Your task to perform on an android device: search for starred emails in the gmail app Image 0: 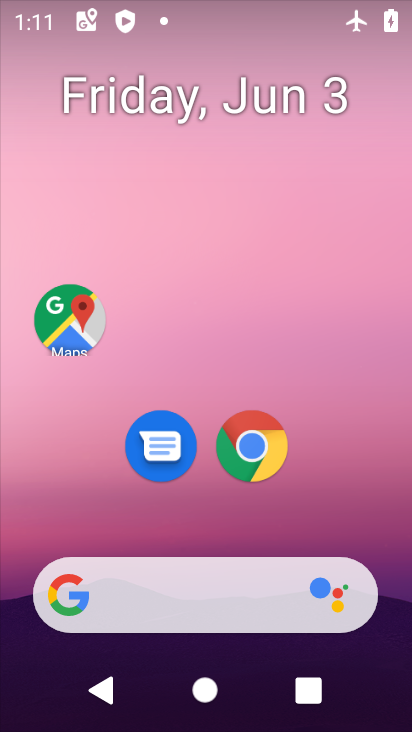
Step 0: drag from (255, 631) to (214, 231)
Your task to perform on an android device: search for starred emails in the gmail app Image 1: 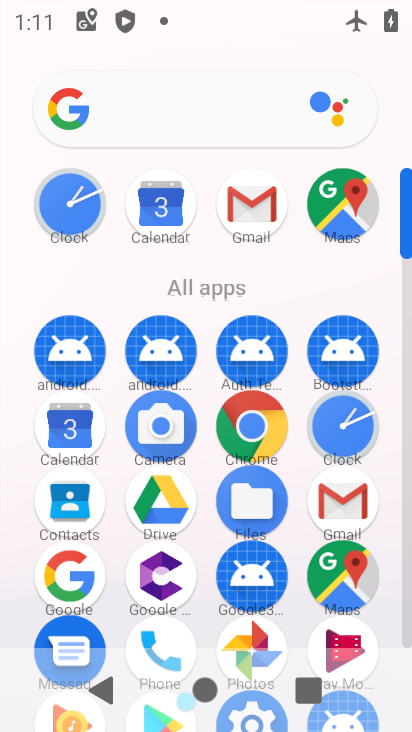
Step 1: click (317, 512)
Your task to perform on an android device: search for starred emails in the gmail app Image 2: 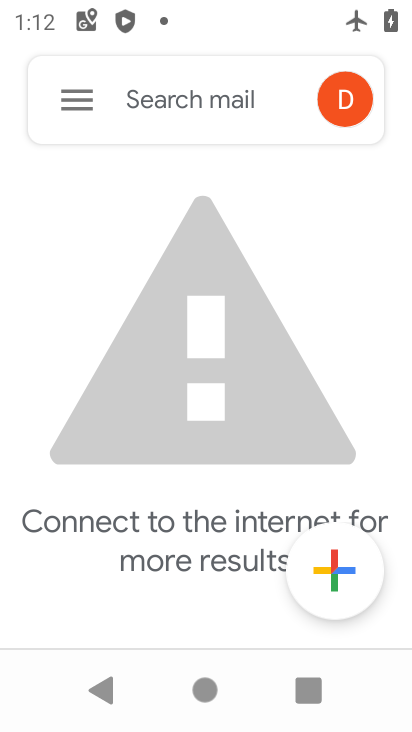
Step 2: task complete